Your task to perform on an android device: Open my contact list Image 0: 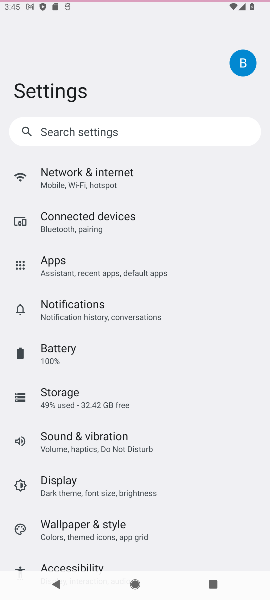
Step 0: press home button
Your task to perform on an android device: Open my contact list Image 1: 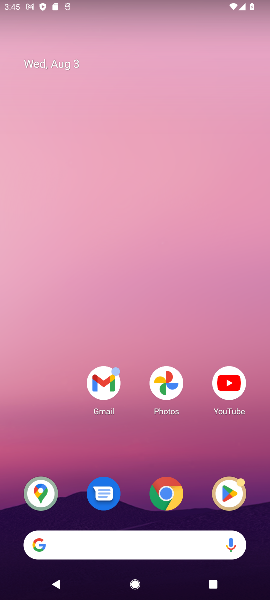
Step 1: drag from (37, 444) to (40, 57)
Your task to perform on an android device: Open my contact list Image 2: 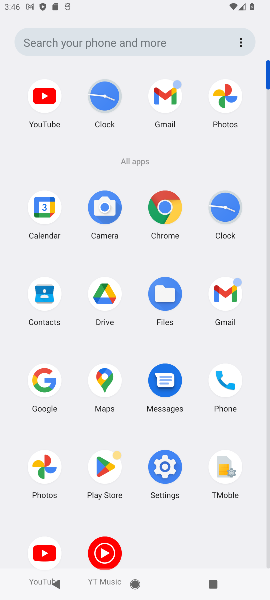
Step 2: click (47, 296)
Your task to perform on an android device: Open my contact list Image 3: 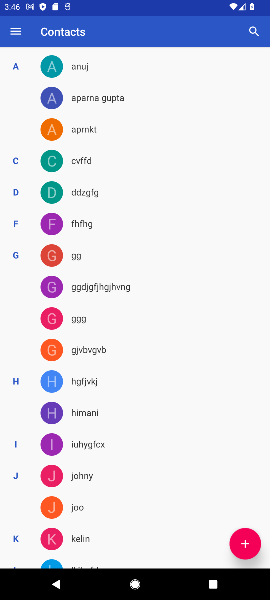
Step 3: task complete